Your task to perform on an android device: turn on airplane mode Image 0: 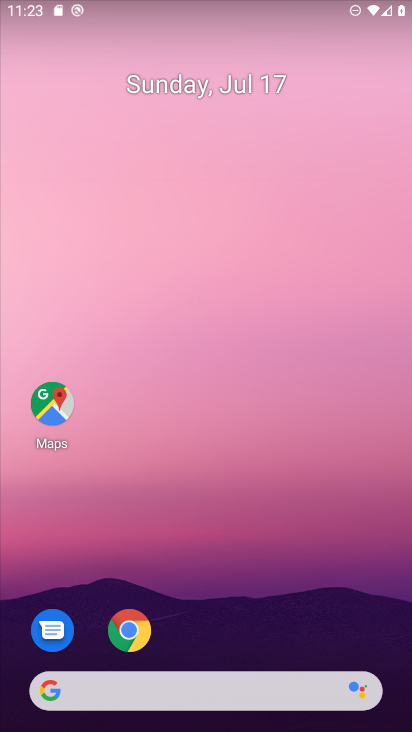
Step 0: drag from (234, 239) to (253, 136)
Your task to perform on an android device: turn on airplane mode Image 1: 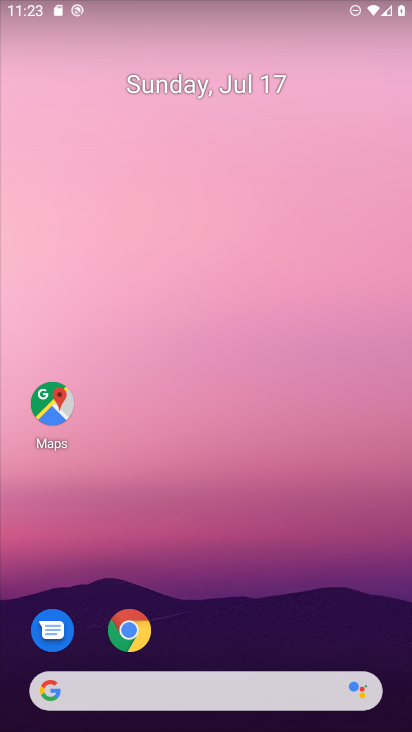
Step 1: drag from (201, 520) to (228, 75)
Your task to perform on an android device: turn on airplane mode Image 2: 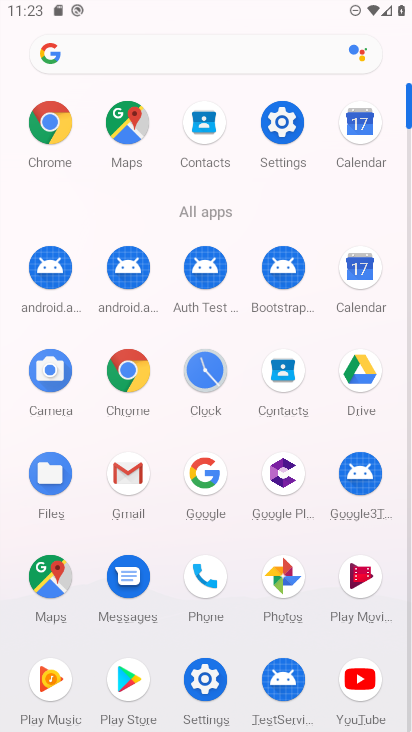
Step 2: click (275, 132)
Your task to perform on an android device: turn on airplane mode Image 3: 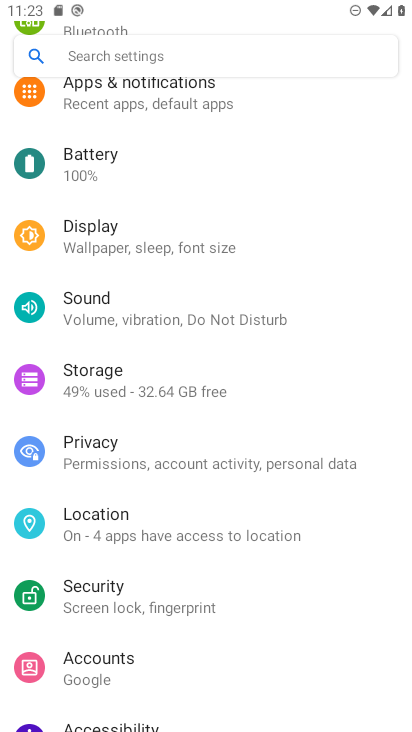
Step 3: drag from (152, 261) to (150, 578)
Your task to perform on an android device: turn on airplane mode Image 4: 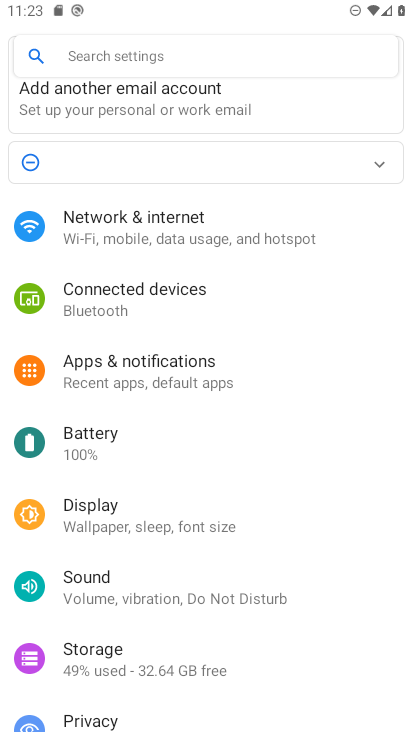
Step 4: click (372, 167)
Your task to perform on an android device: turn on airplane mode Image 5: 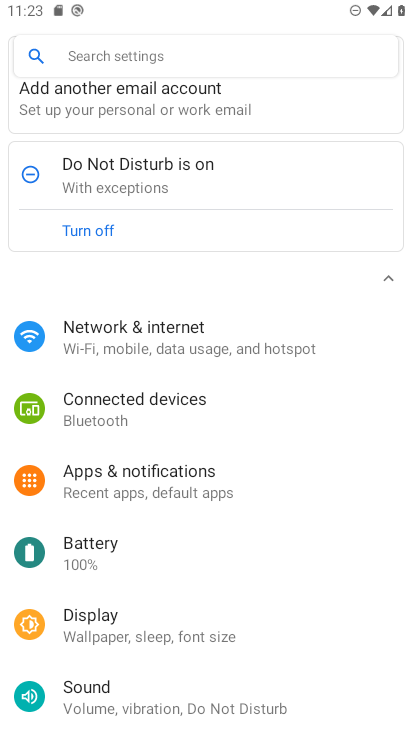
Step 5: click (159, 324)
Your task to perform on an android device: turn on airplane mode Image 6: 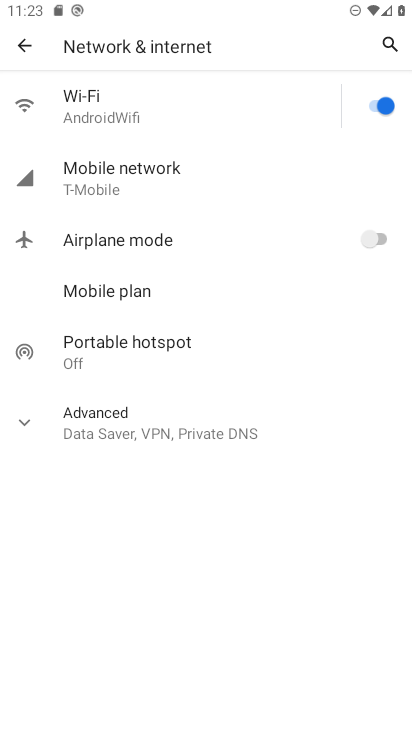
Step 6: click (369, 238)
Your task to perform on an android device: turn on airplane mode Image 7: 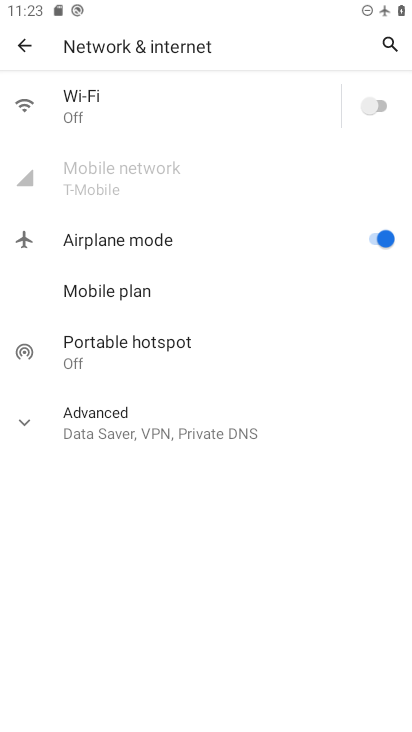
Step 7: task complete